Your task to perform on an android device: Open sound settings Image 0: 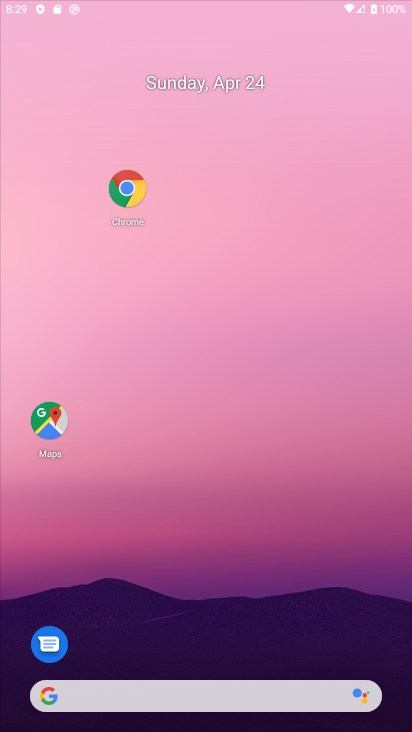
Step 0: click (283, 58)
Your task to perform on an android device: Open sound settings Image 1: 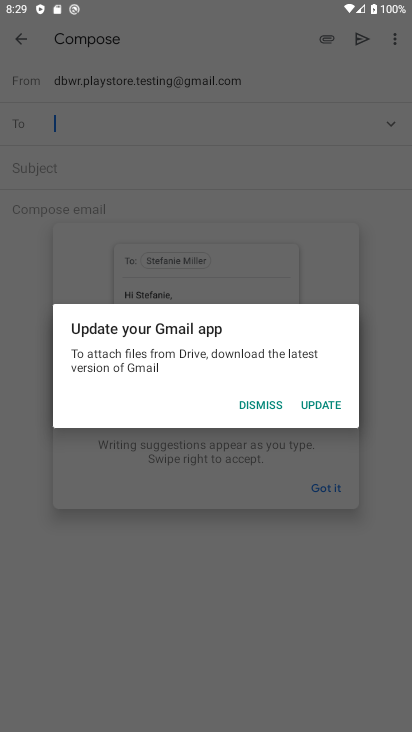
Step 1: press home button
Your task to perform on an android device: Open sound settings Image 2: 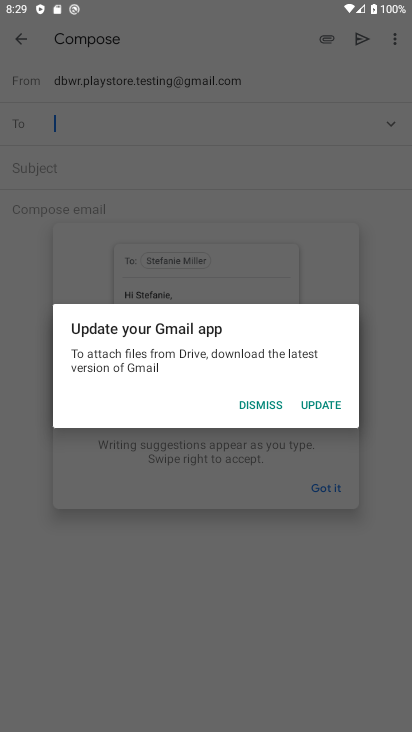
Step 2: press home button
Your task to perform on an android device: Open sound settings Image 3: 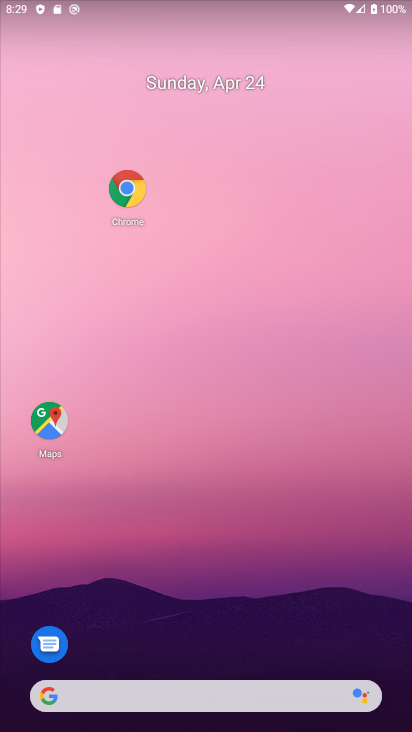
Step 3: drag from (177, 619) to (217, 55)
Your task to perform on an android device: Open sound settings Image 4: 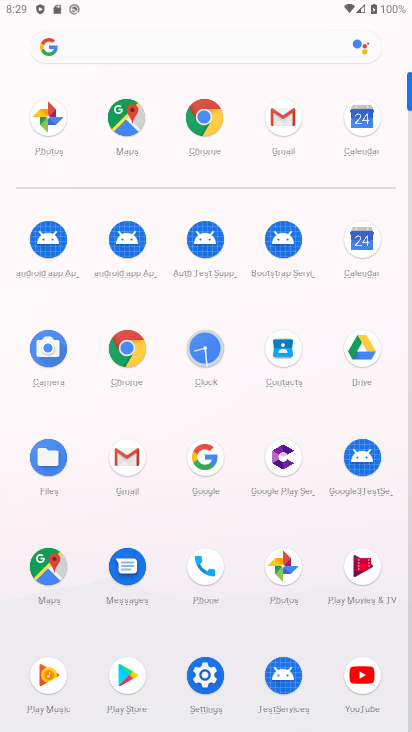
Step 4: click (206, 681)
Your task to perform on an android device: Open sound settings Image 5: 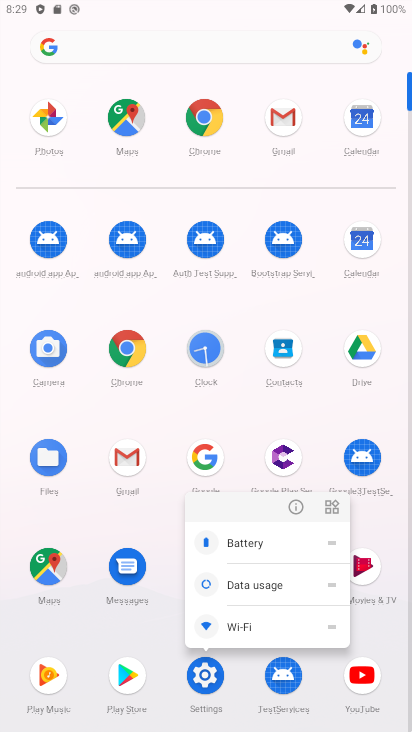
Step 5: click (298, 508)
Your task to perform on an android device: Open sound settings Image 6: 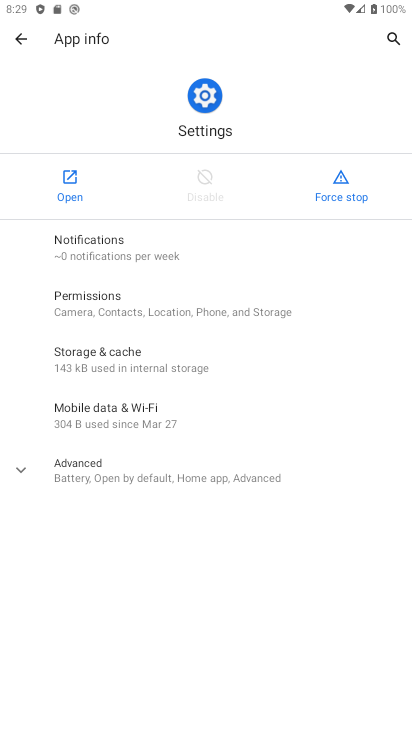
Step 6: click (70, 195)
Your task to perform on an android device: Open sound settings Image 7: 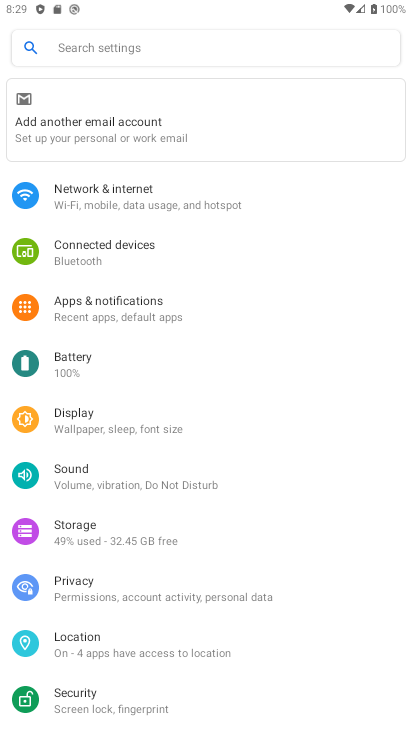
Step 7: click (119, 484)
Your task to perform on an android device: Open sound settings Image 8: 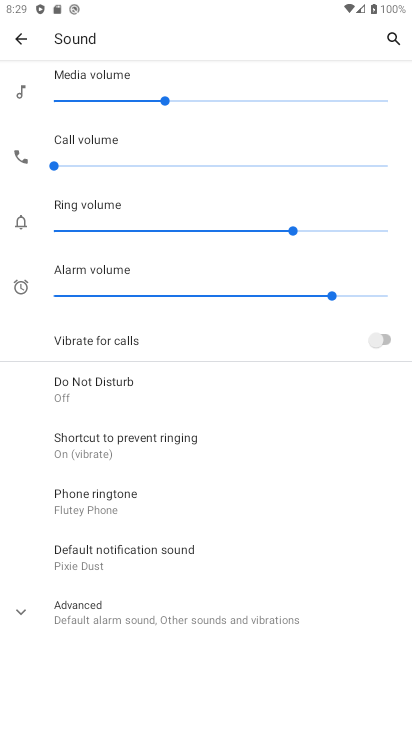
Step 8: task complete